Your task to perform on an android device: Find coffee shops on Maps Image 0: 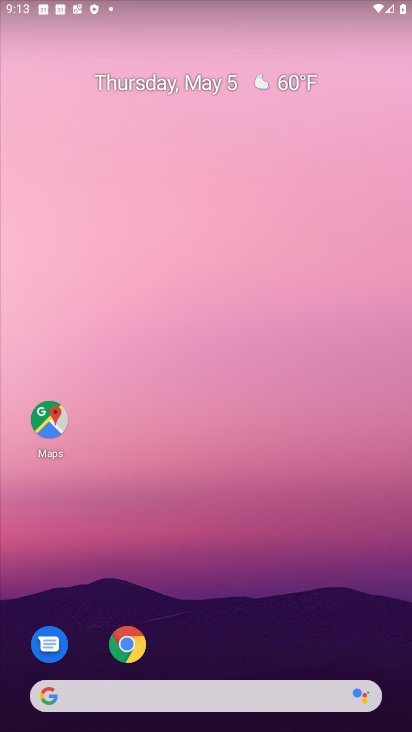
Step 0: drag from (214, 664) to (252, 107)
Your task to perform on an android device: Find coffee shops on Maps Image 1: 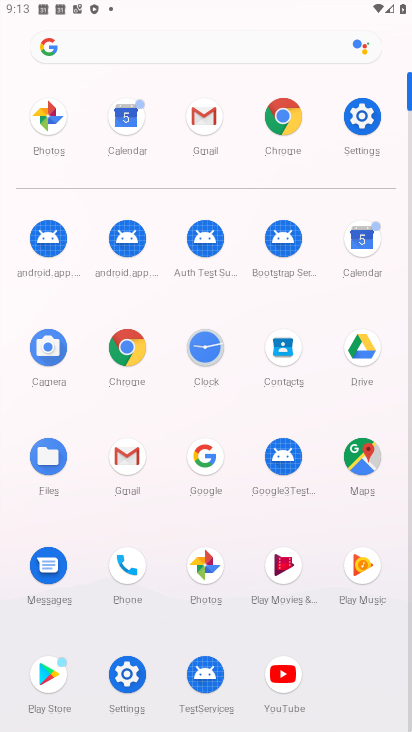
Step 1: click (368, 452)
Your task to perform on an android device: Find coffee shops on Maps Image 2: 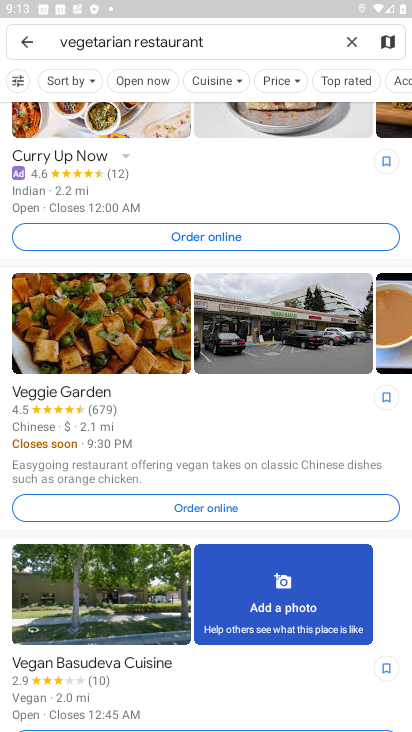
Step 2: drag from (200, 580) to (261, 207)
Your task to perform on an android device: Find coffee shops on Maps Image 3: 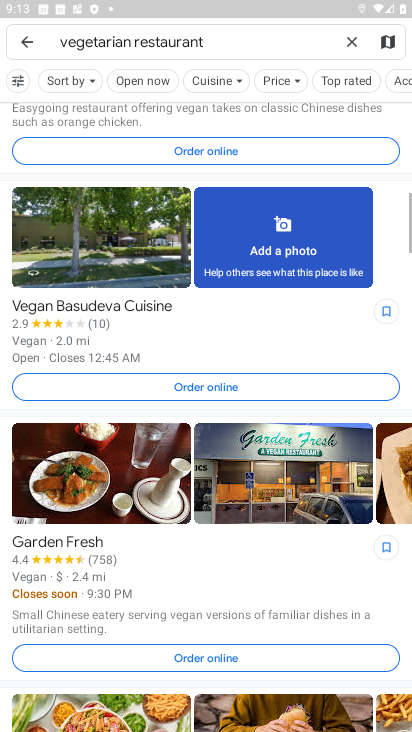
Step 3: drag from (213, 525) to (285, 220)
Your task to perform on an android device: Find coffee shops on Maps Image 4: 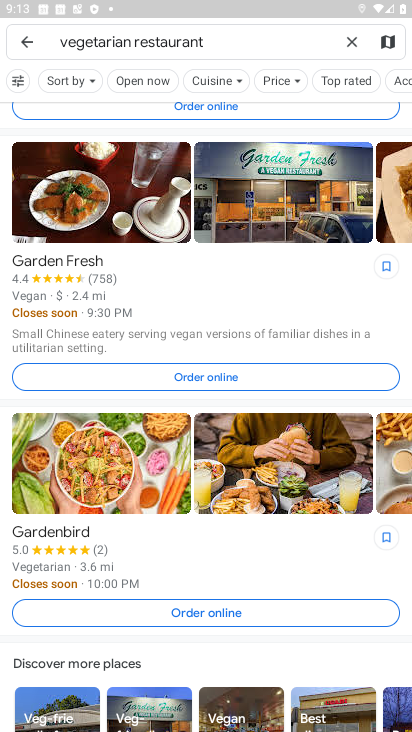
Step 4: drag from (257, 504) to (294, 283)
Your task to perform on an android device: Find coffee shops on Maps Image 5: 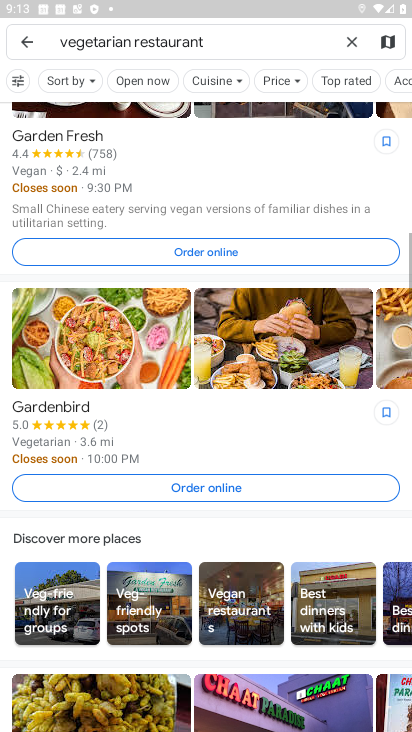
Step 5: click (346, 45)
Your task to perform on an android device: Find coffee shops on Maps Image 6: 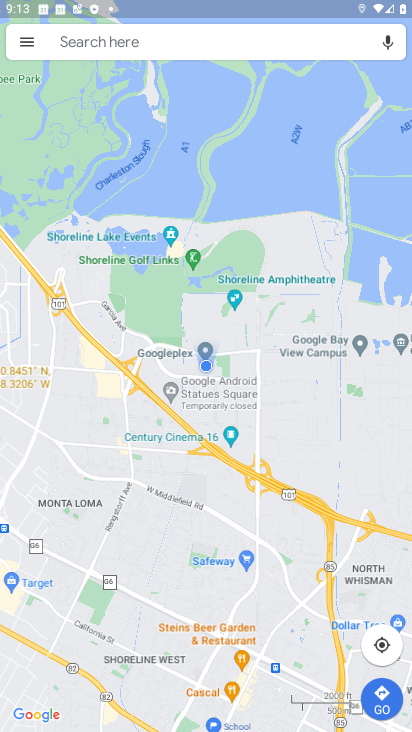
Step 6: click (104, 39)
Your task to perform on an android device: Find coffee shops on Maps Image 7: 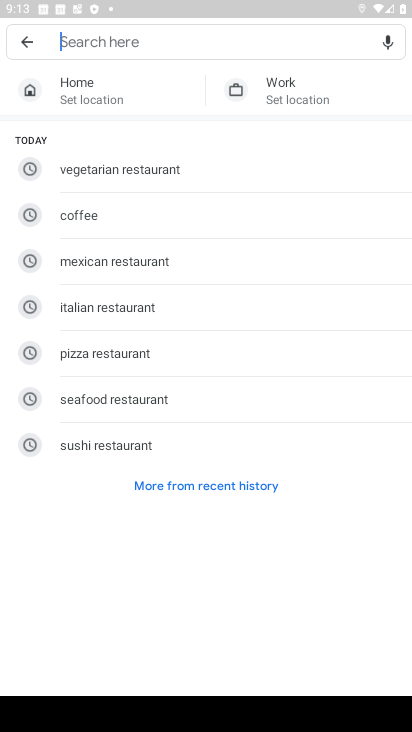
Step 7: type "coffee"
Your task to perform on an android device: Find coffee shops on Maps Image 8: 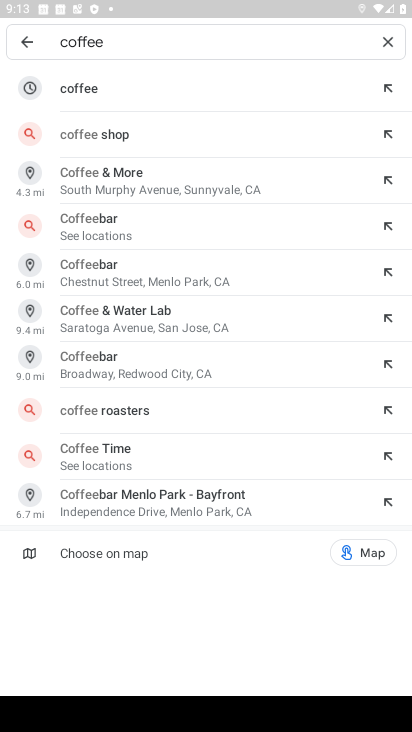
Step 8: click (138, 90)
Your task to perform on an android device: Find coffee shops on Maps Image 9: 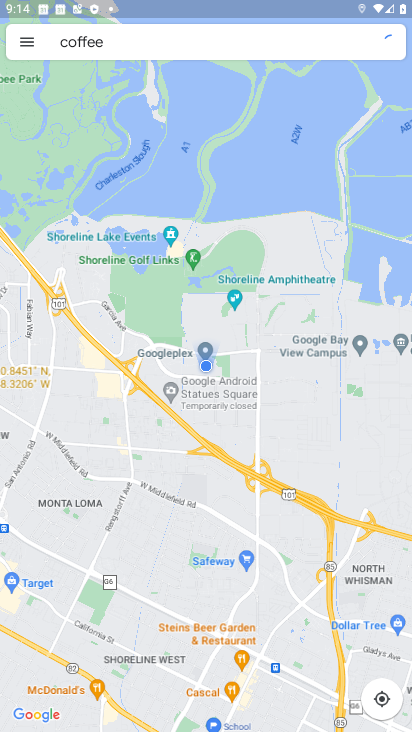
Step 9: task complete